Your task to perform on an android device: Open wifi settings Image 0: 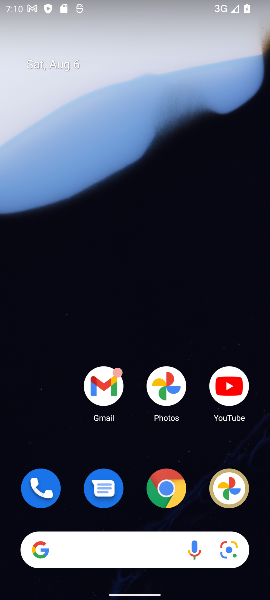
Step 0: drag from (132, 516) to (168, 130)
Your task to perform on an android device: Open wifi settings Image 1: 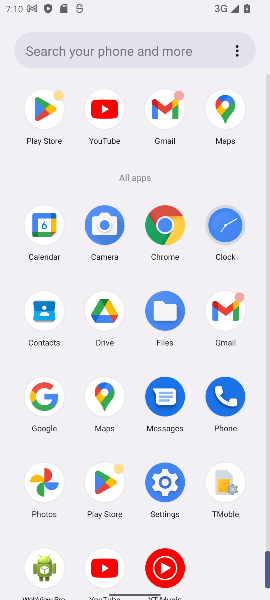
Step 1: click (166, 492)
Your task to perform on an android device: Open wifi settings Image 2: 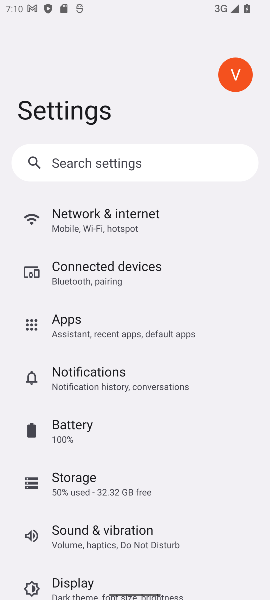
Step 2: click (124, 225)
Your task to perform on an android device: Open wifi settings Image 3: 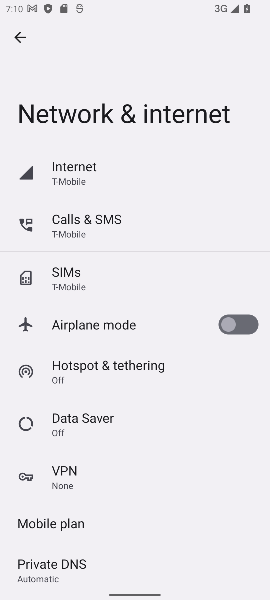
Step 3: drag from (193, 569) to (159, 362)
Your task to perform on an android device: Open wifi settings Image 4: 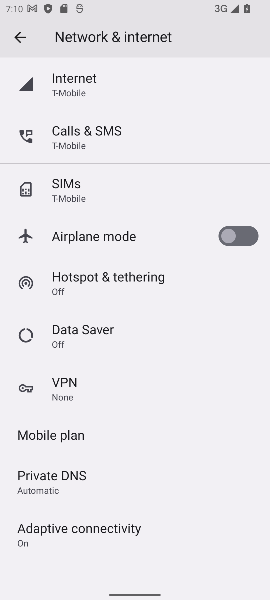
Step 4: drag from (233, 579) to (216, 468)
Your task to perform on an android device: Open wifi settings Image 5: 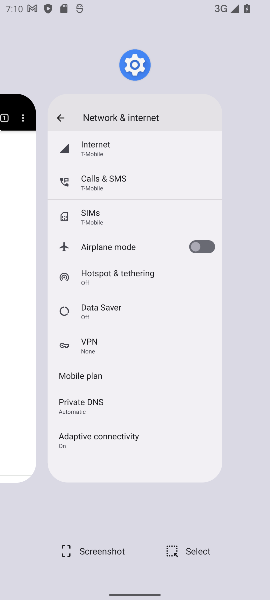
Step 5: click (92, 344)
Your task to perform on an android device: Open wifi settings Image 6: 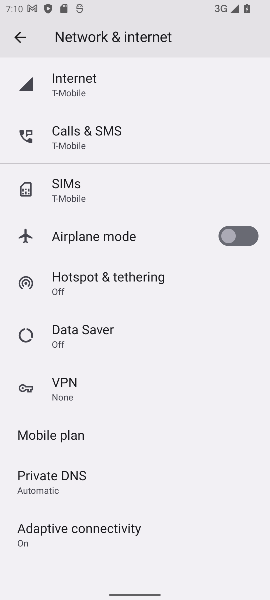
Step 6: click (66, 389)
Your task to perform on an android device: Open wifi settings Image 7: 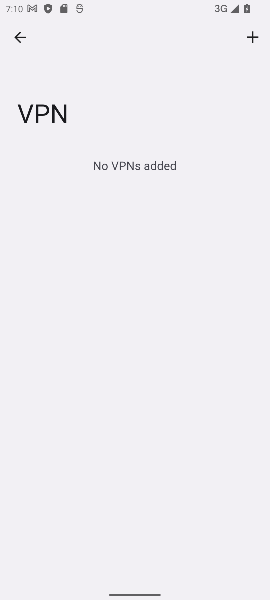
Step 7: task complete